Your task to perform on an android device: Search for Mexican restaurants on Maps Image 0: 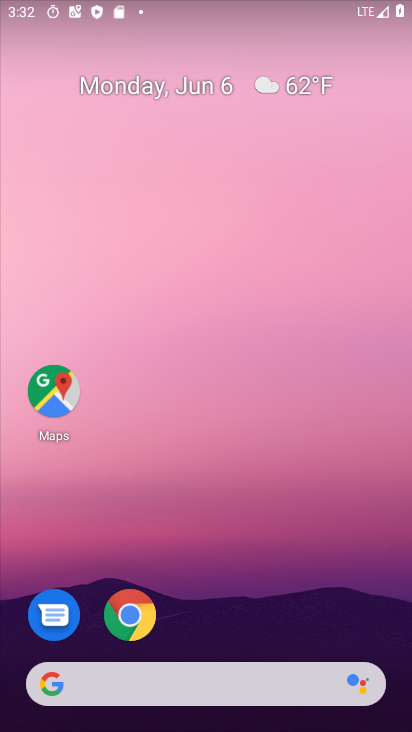
Step 0: drag from (270, 644) to (299, 18)
Your task to perform on an android device: Search for Mexican restaurants on Maps Image 1: 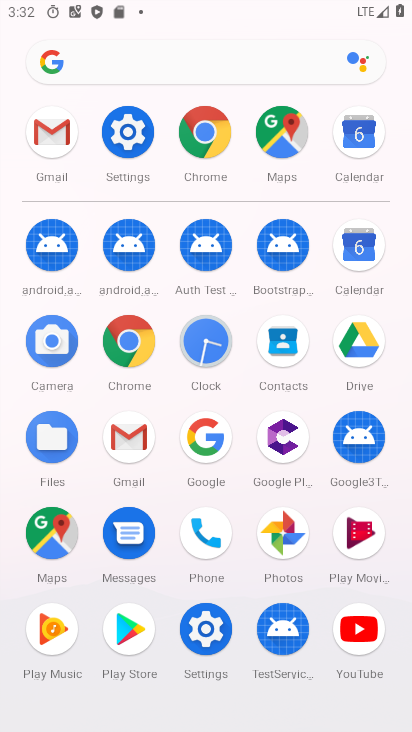
Step 1: click (39, 522)
Your task to perform on an android device: Search for Mexican restaurants on Maps Image 2: 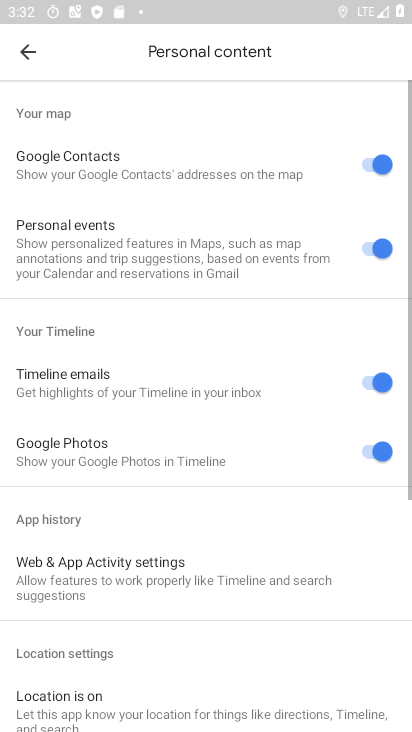
Step 2: press back button
Your task to perform on an android device: Search for Mexican restaurants on Maps Image 3: 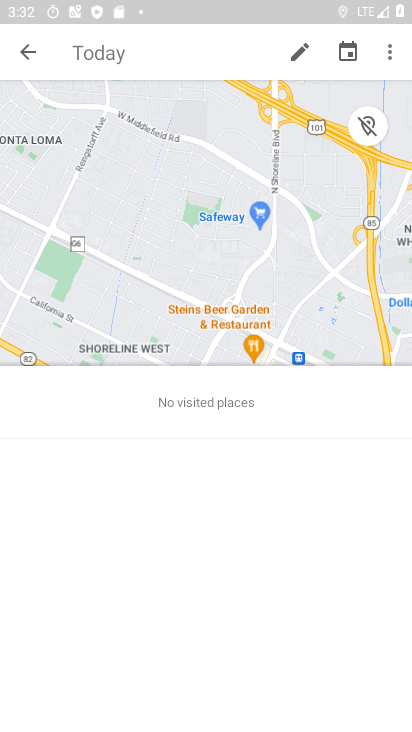
Step 3: press back button
Your task to perform on an android device: Search for Mexican restaurants on Maps Image 4: 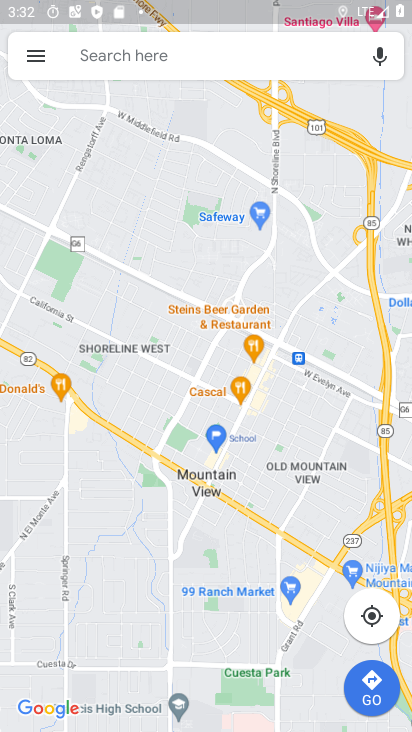
Step 4: click (196, 54)
Your task to perform on an android device: Search for Mexican restaurants on Maps Image 5: 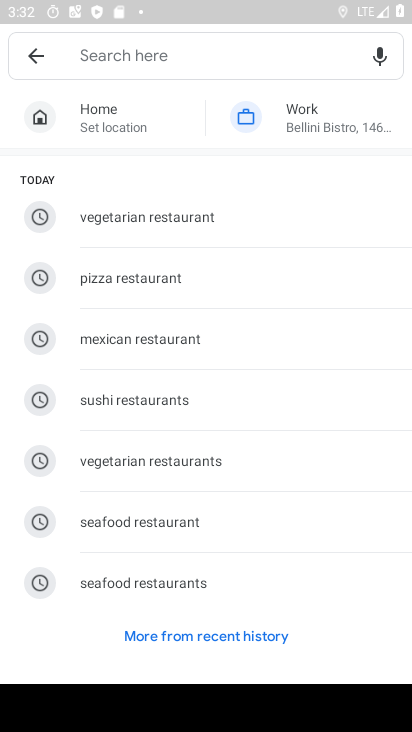
Step 5: click (159, 352)
Your task to perform on an android device: Search for Mexican restaurants on Maps Image 6: 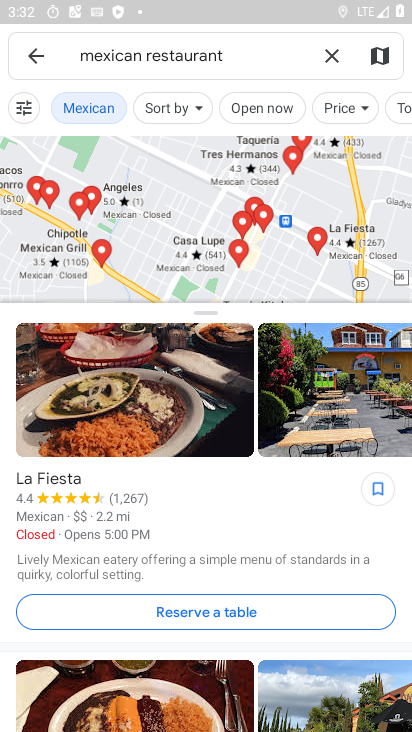
Step 6: task complete